Your task to perform on an android device: star an email in the gmail app Image 0: 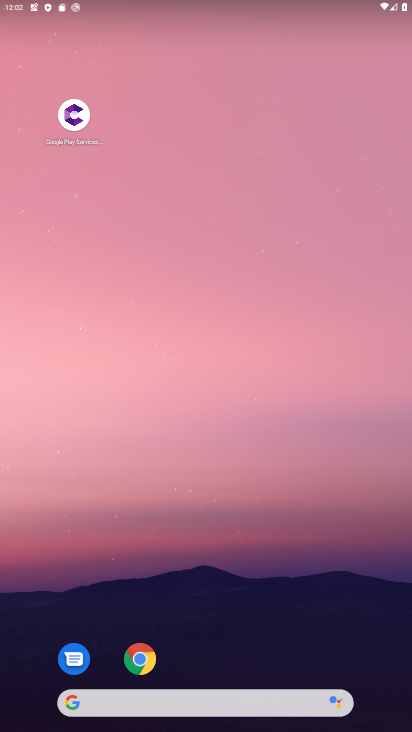
Step 0: drag from (209, 639) to (209, 138)
Your task to perform on an android device: star an email in the gmail app Image 1: 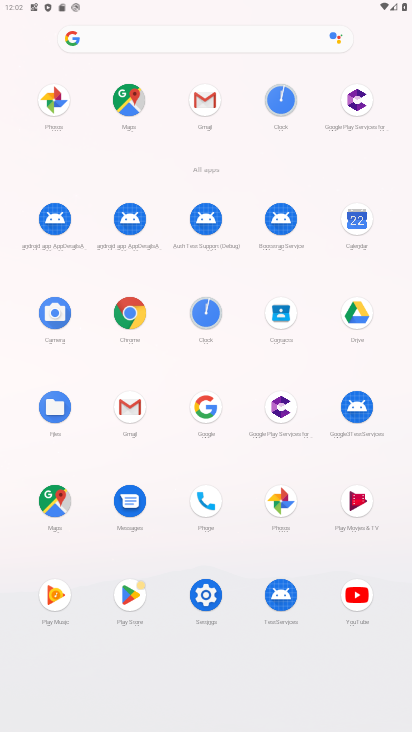
Step 1: click (204, 122)
Your task to perform on an android device: star an email in the gmail app Image 2: 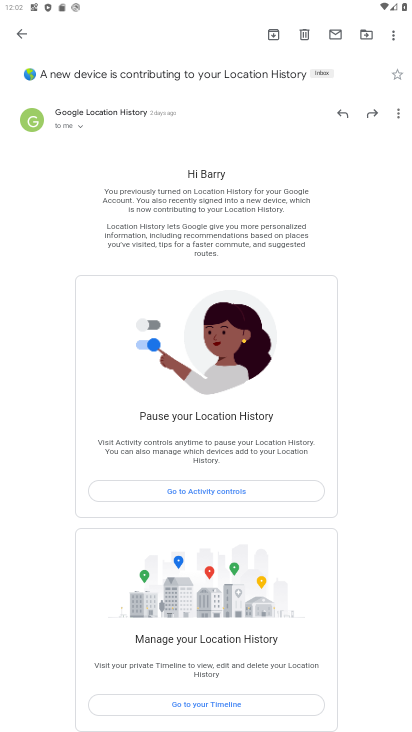
Step 2: click (391, 72)
Your task to perform on an android device: star an email in the gmail app Image 3: 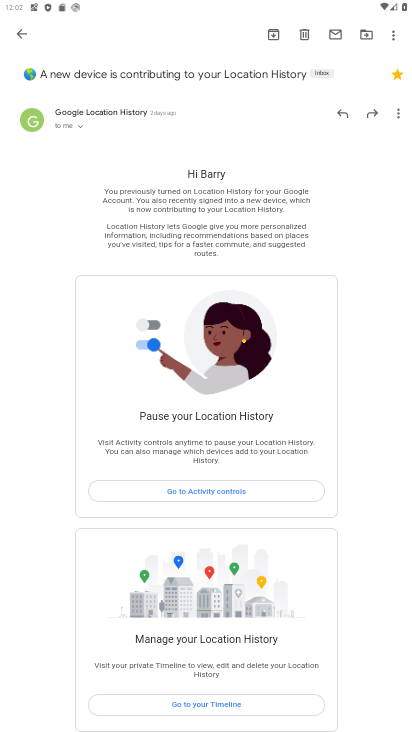
Step 3: task complete